Your task to perform on an android device: toggle priority inbox in the gmail app Image 0: 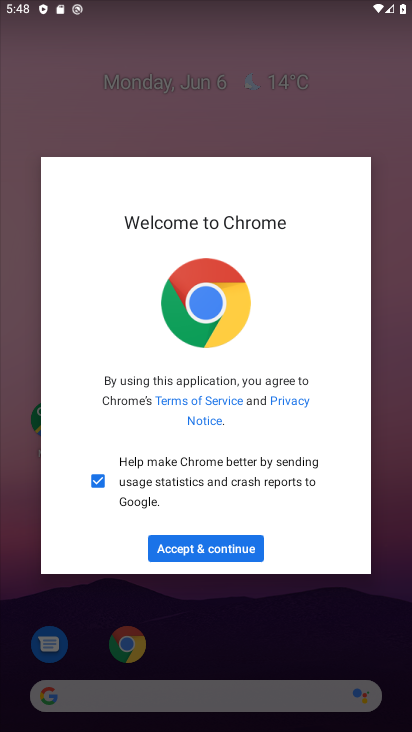
Step 0: click (216, 545)
Your task to perform on an android device: toggle priority inbox in the gmail app Image 1: 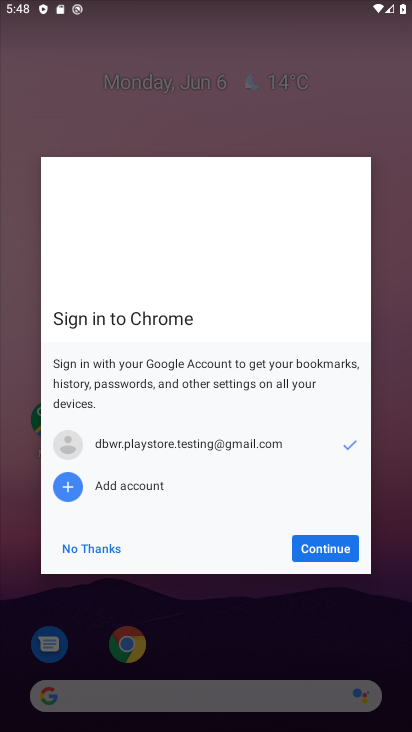
Step 1: click (324, 548)
Your task to perform on an android device: toggle priority inbox in the gmail app Image 2: 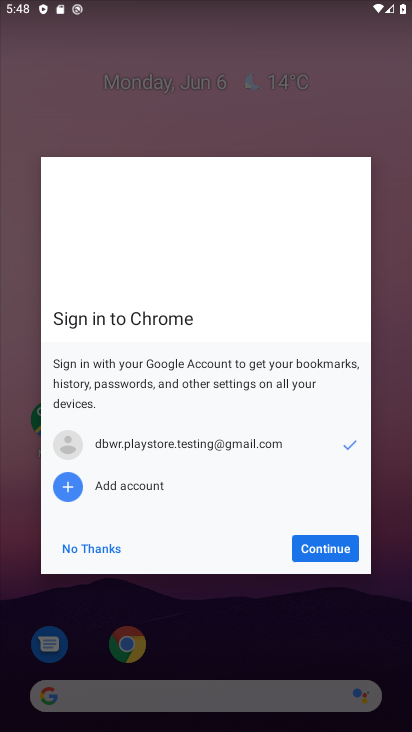
Step 2: click (324, 548)
Your task to perform on an android device: toggle priority inbox in the gmail app Image 3: 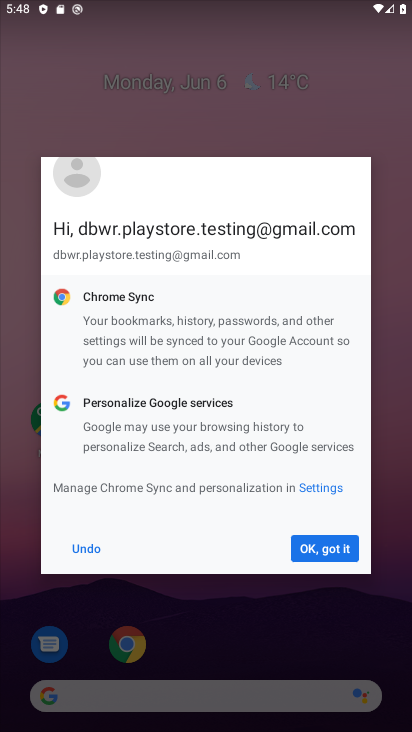
Step 3: click (332, 549)
Your task to perform on an android device: toggle priority inbox in the gmail app Image 4: 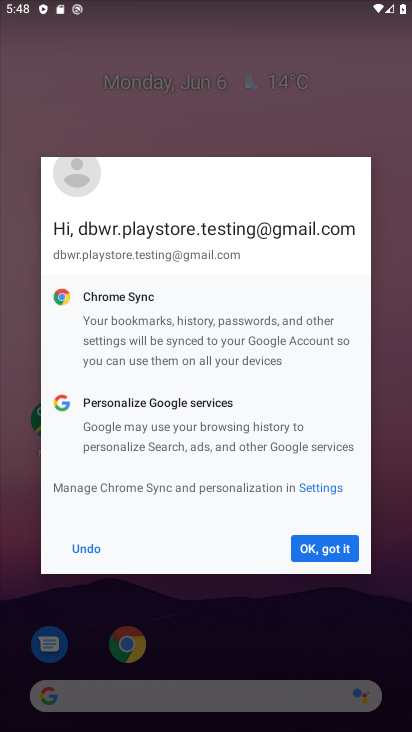
Step 4: click (332, 549)
Your task to perform on an android device: toggle priority inbox in the gmail app Image 5: 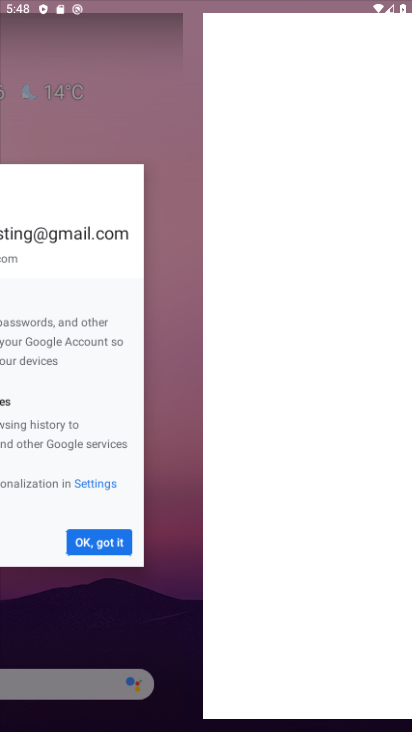
Step 5: click (331, 550)
Your task to perform on an android device: toggle priority inbox in the gmail app Image 6: 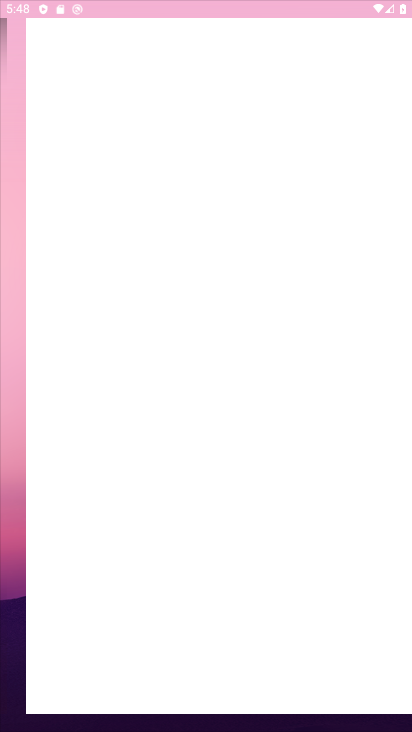
Step 6: click (331, 550)
Your task to perform on an android device: toggle priority inbox in the gmail app Image 7: 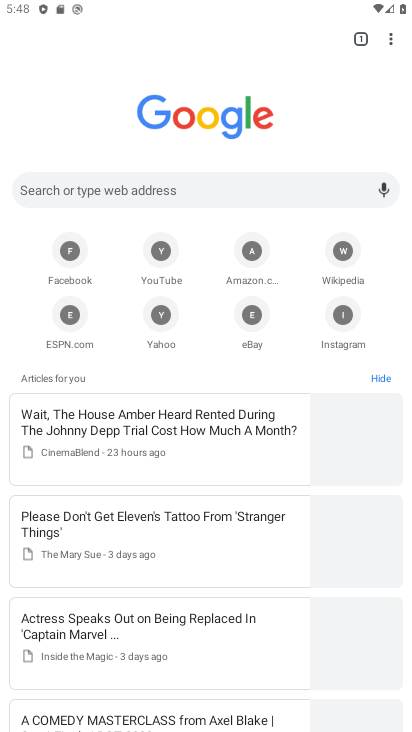
Step 7: drag from (387, 34) to (241, 325)
Your task to perform on an android device: toggle priority inbox in the gmail app Image 8: 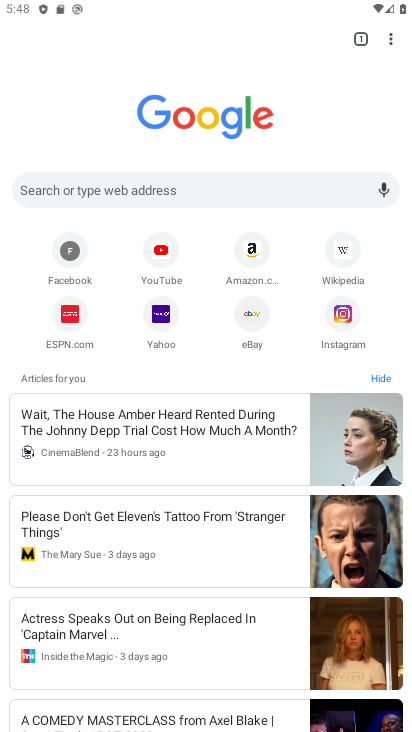
Step 8: press back button
Your task to perform on an android device: toggle priority inbox in the gmail app Image 9: 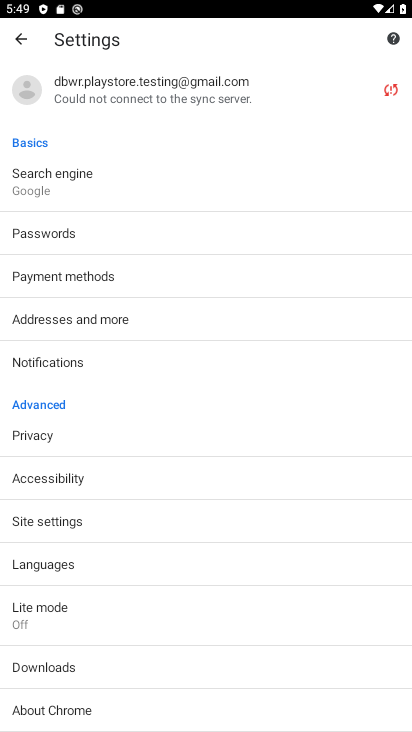
Step 9: press back button
Your task to perform on an android device: toggle priority inbox in the gmail app Image 10: 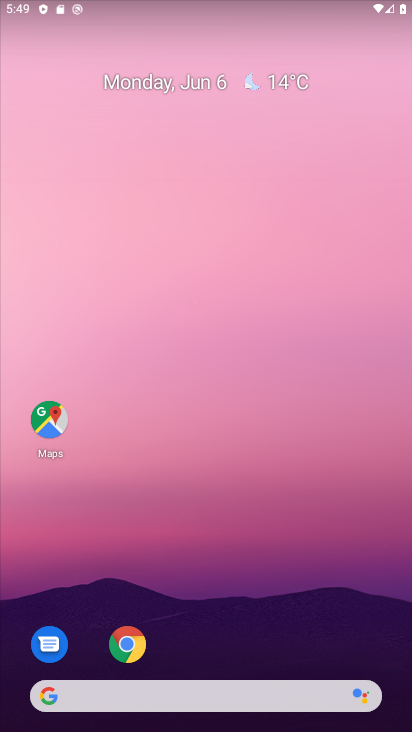
Step 10: drag from (186, 627) to (129, 227)
Your task to perform on an android device: toggle priority inbox in the gmail app Image 11: 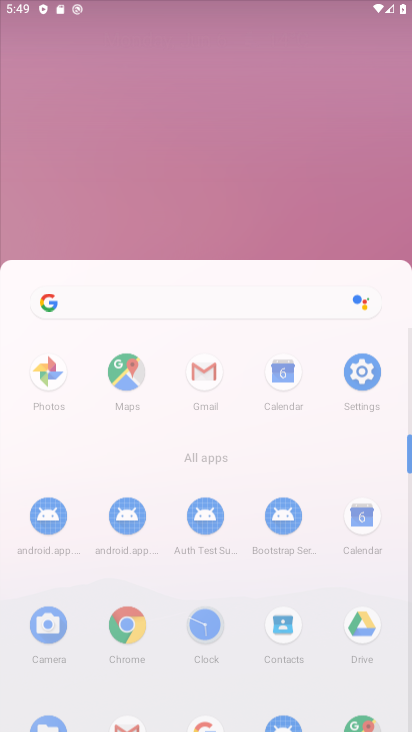
Step 11: drag from (207, 574) to (111, 211)
Your task to perform on an android device: toggle priority inbox in the gmail app Image 12: 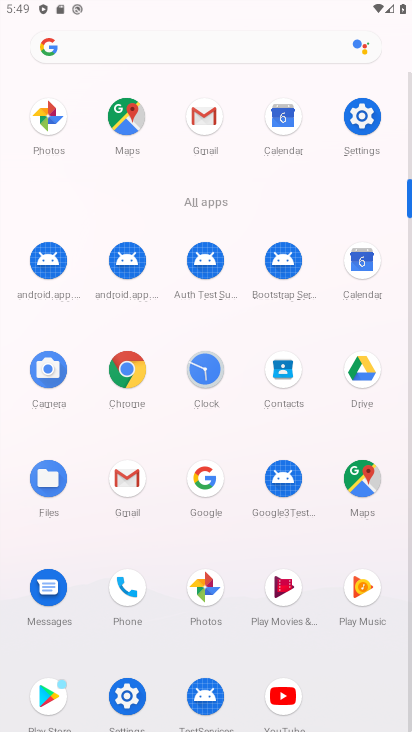
Step 12: drag from (253, 554) to (201, 180)
Your task to perform on an android device: toggle priority inbox in the gmail app Image 13: 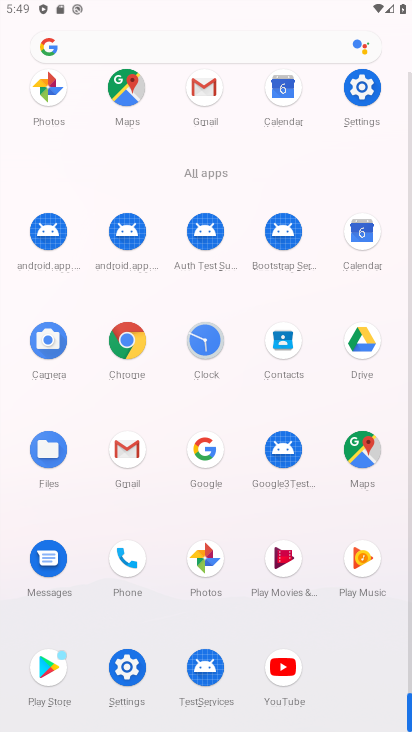
Step 13: click (135, 452)
Your task to perform on an android device: toggle priority inbox in the gmail app Image 14: 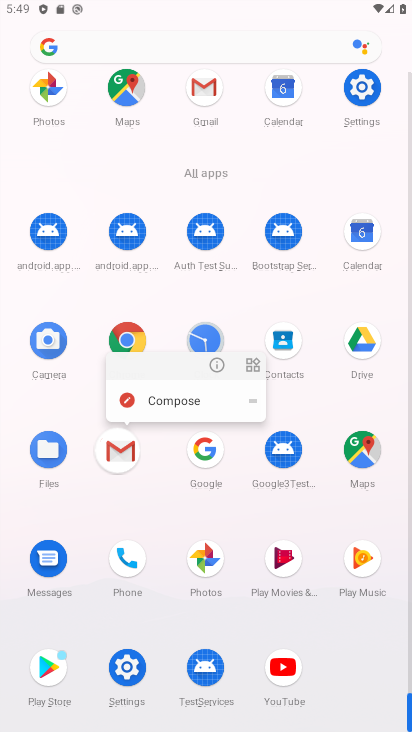
Step 14: click (129, 457)
Your task to perform on an android device: toggle priority inbox in the gmail app Image 15: 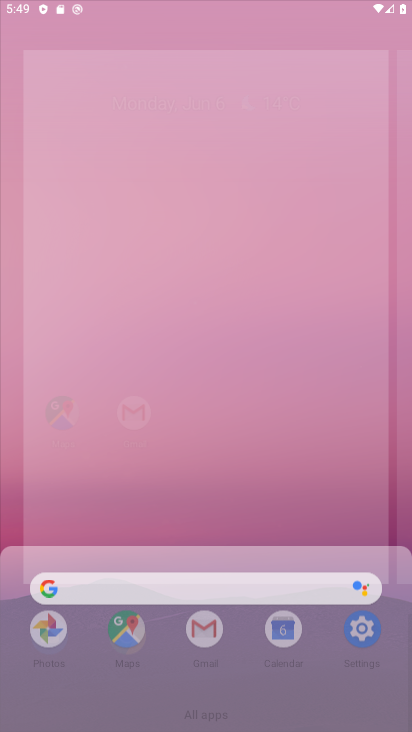
Step 15: click (123, 454)
Your task to perform on an android device: toggle priority inbox in the gmail app Image 16: 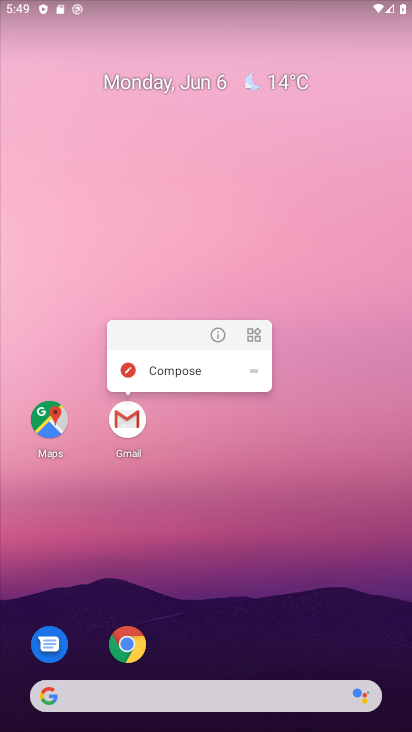
Step 16: drag from (241, 663) to (95, 205)
Your task to perform on an android device: toggle priority inbox in the gmail app Image 17: 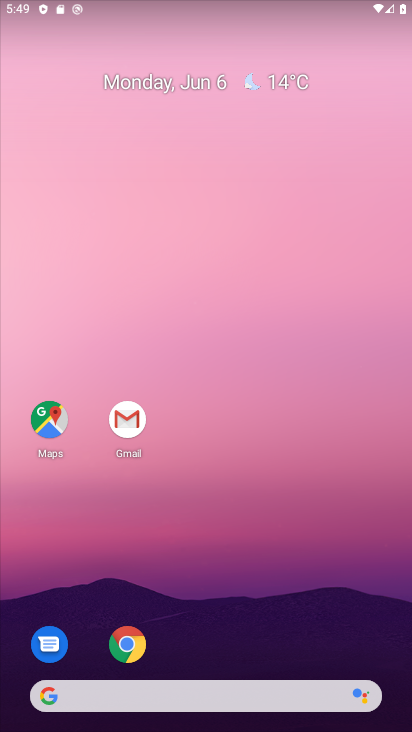
Step 17: drag from (193, 636) to (115, 162)
Your task to perform on an android device: toggle priority inbox in the gmail app Image 18: 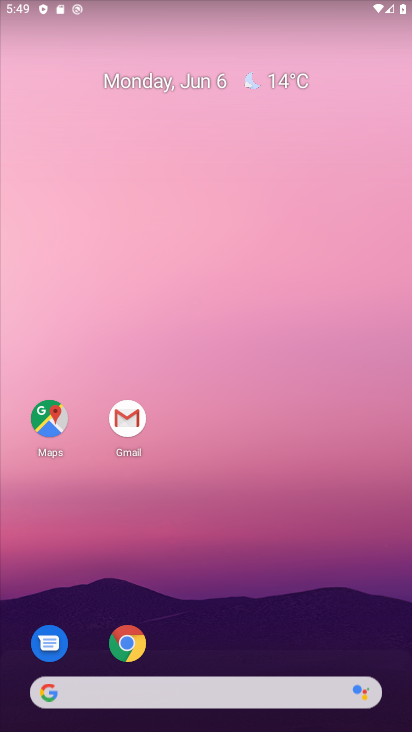
Step 18: drag from (236, 564) to (177, 161)
Your task to perform on an android device: toggle priority inbox in the gmail app Image 19: 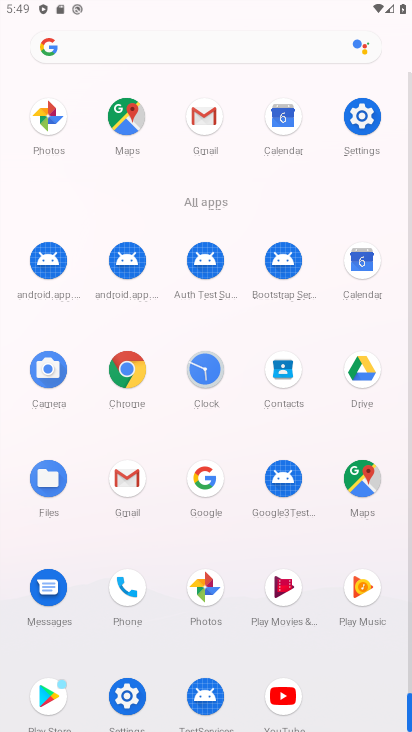
Step 19: drag from (233, 606) to (120, 48)
Your task to perform on an android device: toggle priority inbox in the gmail app Image 20: 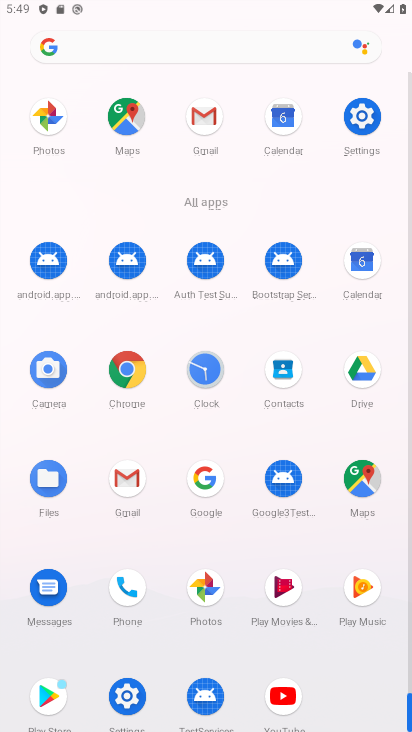
Step 20: click (132, 474)
Your task to perform on an android device: toggle priority inbox in the gmail app Image 21: 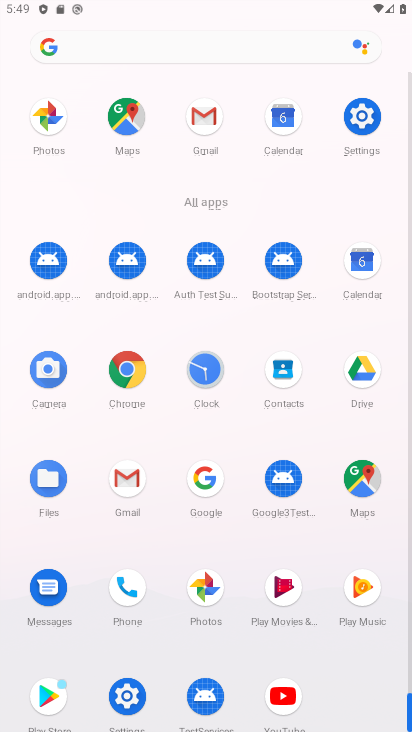
Step 21: click (132, 474)
Your task to perform on an android device: toggle priority inbox in the gmail app Image 22: 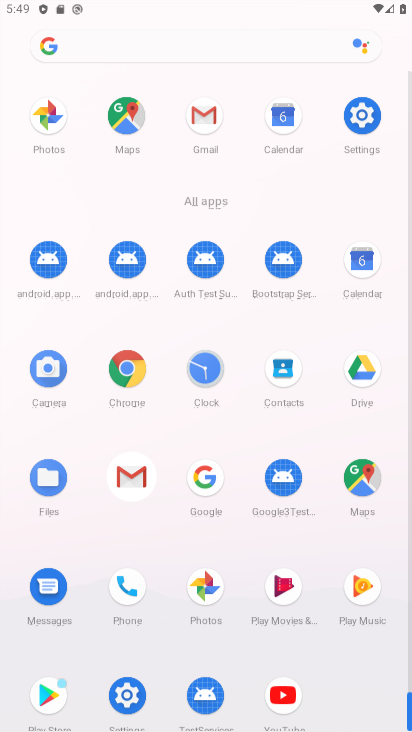
Step 22: click (124, 472)
Your task to perform on an android device: toggle priority inbox in the gmail app Image 23: 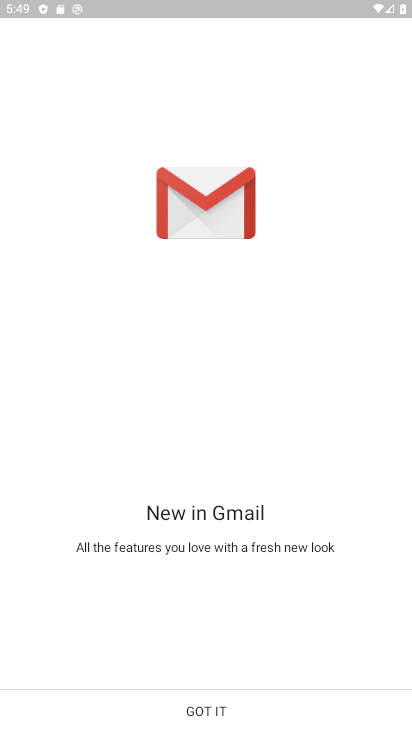
Step 23: click (131, 488)
Your task to perform on an android device: toggle priority inbox in the gmail app Image 24: 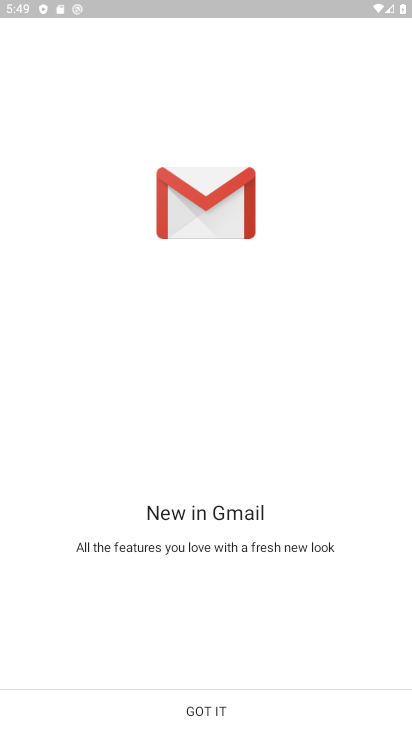
Step 24: click (139, 480)
Your task to perform on an android device: toggle priority inbox in the gmail app Image 25: 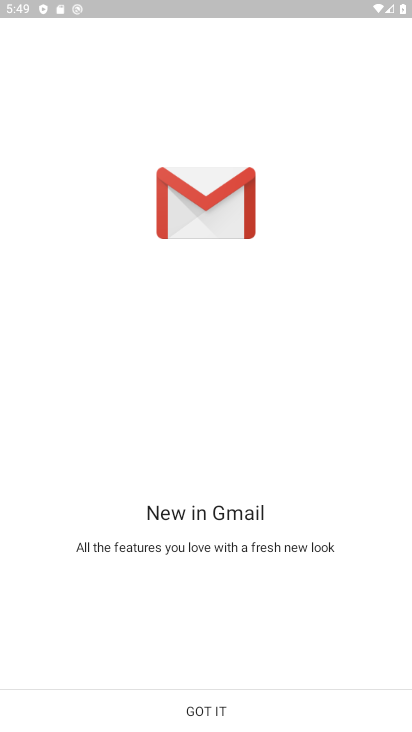
Step 25: click (214, 707)
Your task to perform on an android device: toggle priority inbox in the gmail app Image 26: 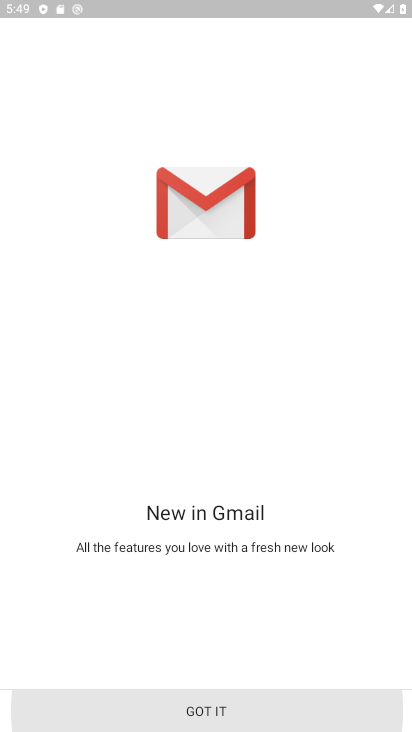
Step 26: drag from (214, 706) to (249, 709)
Your task to perform on an android device: toggle priority inbox in the gmail app Image 27: 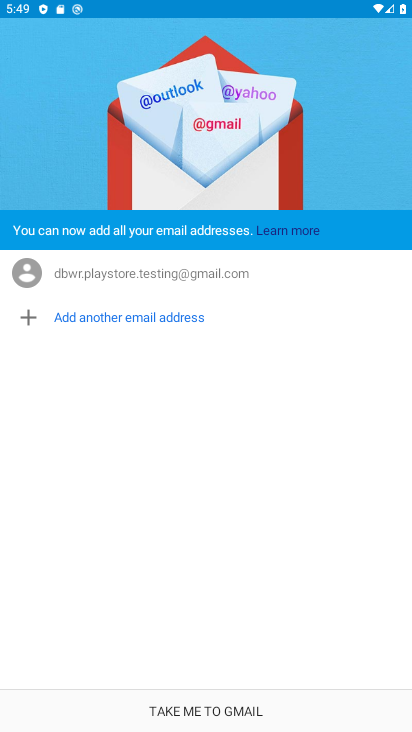
Step 27: click (249, 709)
Your task to perform on an android device: toggle priority inbox in the gmail app Image 28: 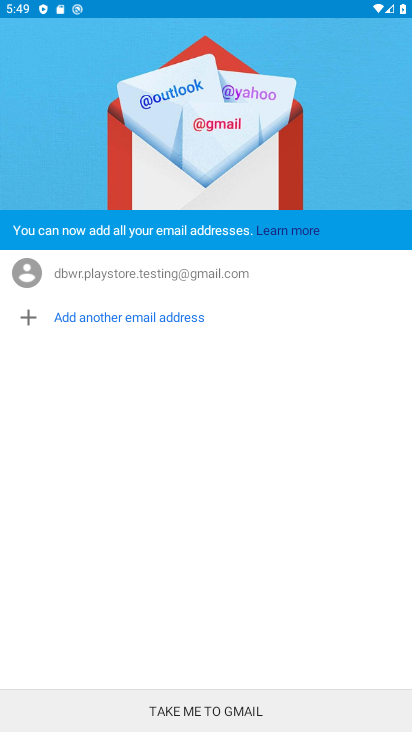
Step 28: click (255, 706)
Your task to perform on an android device: toggle priority inbox in the gmail app Image 29: 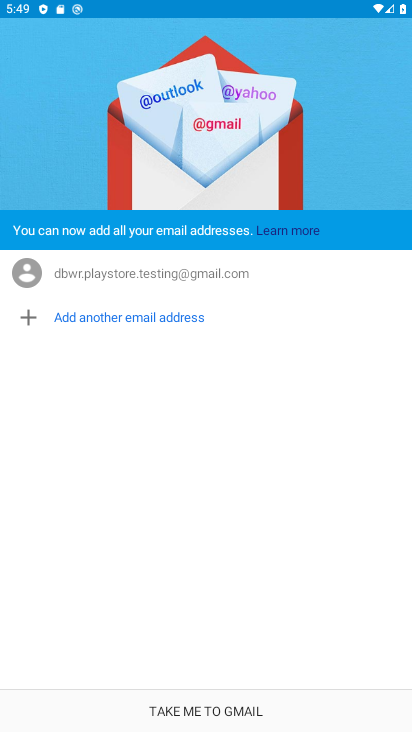
Step 29: click (256, 709)
Your task to perform on an android device: toggle priority inbox in the gmail app Image 30: 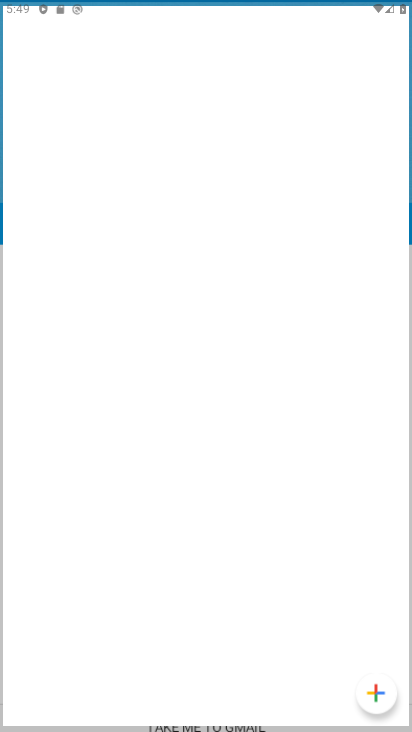
Step 30: click (252, 711)
Your task to perform on an android device: toggle priority inbox in the gmail app Image 31: 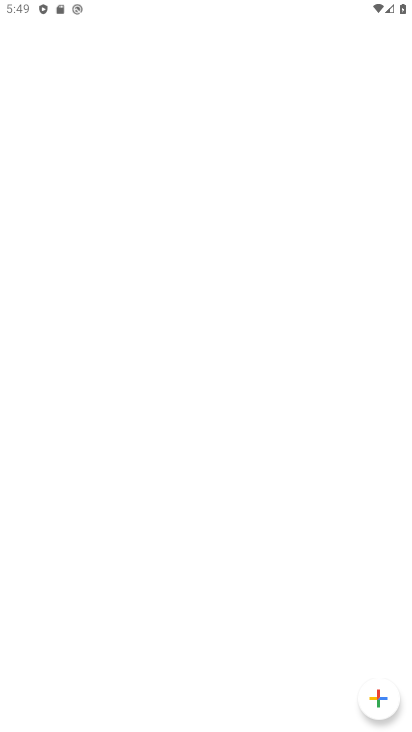
Step 31: click (236, 709)
Your task to perform on an android device: toggle priority inbox in the gmail app Image 32: 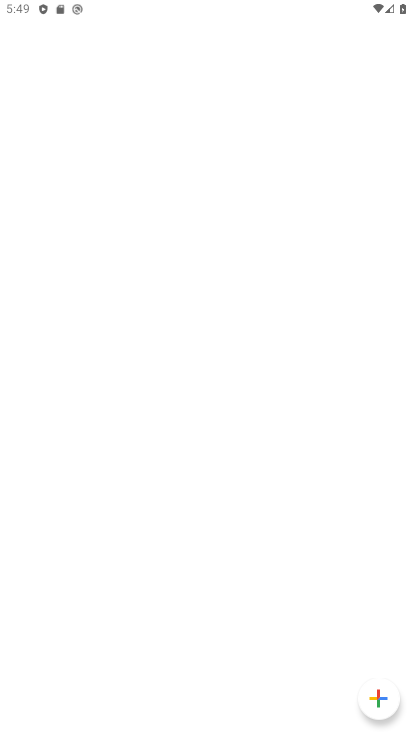
Step 32: click (236, 709)
Your task to perform on an android device: toggle priority inbox in the gmail app Image 33: 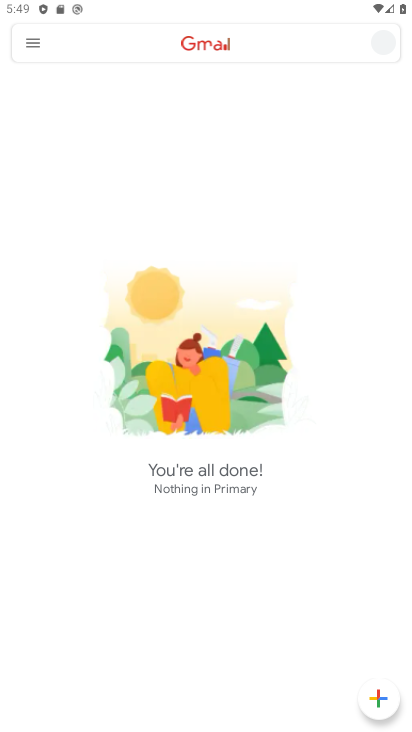
Step 33: click (31, 38)
Your task to perform on an android device: toggle priority inbox in the gmail app Image 34: 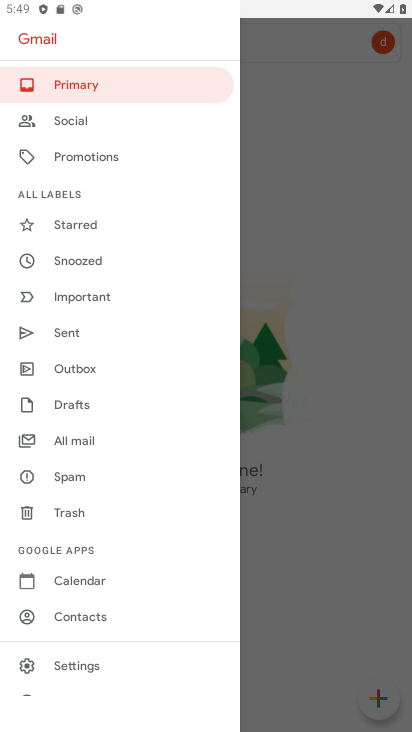
Step 34: click (77, 667)
Your task to perform on an android device: toggle priority inbox in the gmail app Image 35: 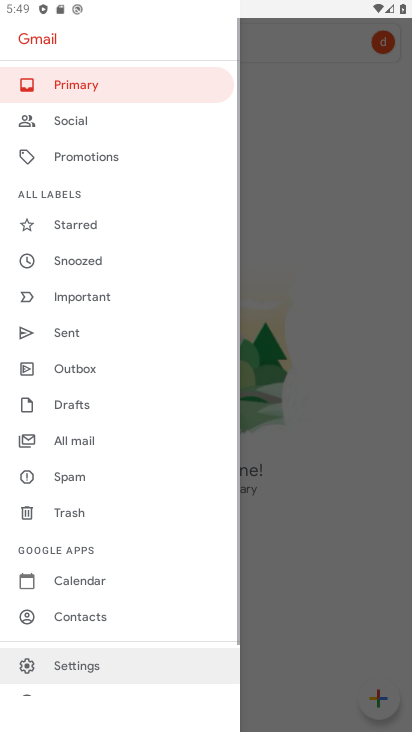
Step 35: click (77, 667)
Your task to perform on an android device: toggle priority inbox in the gmail app Image 36: 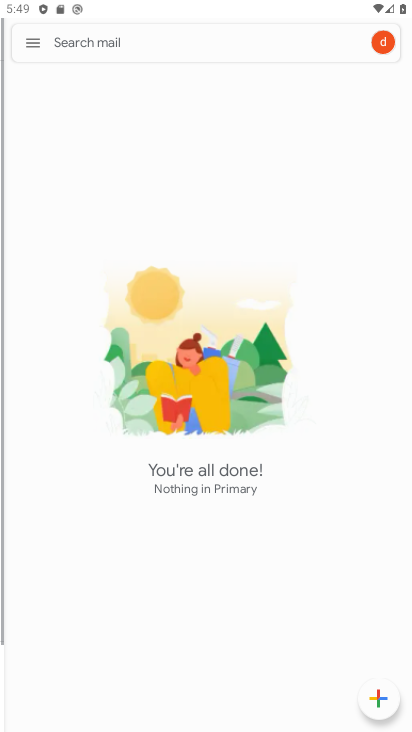
Step 36: click (76, 668)
Your task to perform on an android device: toggle priority inbox in the gmail app Image 37: 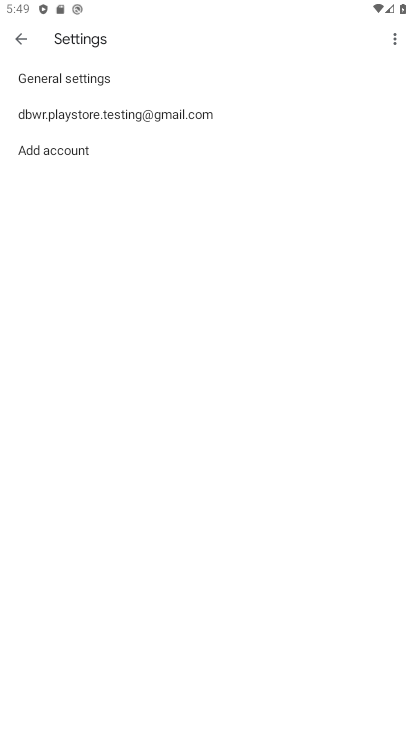
Step 37: click (97, 119)
Your task to perform on an android device: toggle priority inbox in the gmail app Image 38: 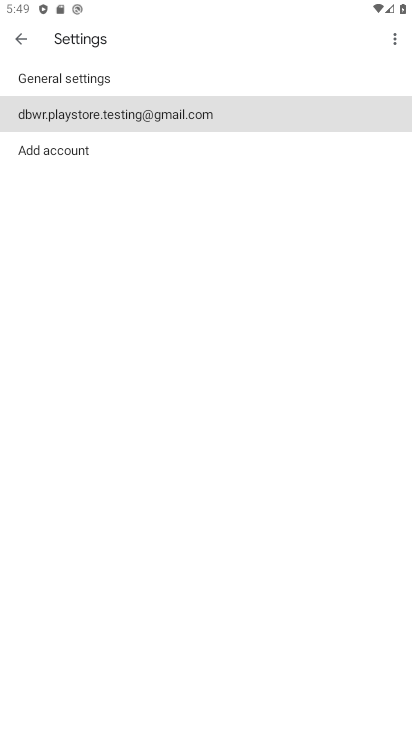
Step 38: click (97, 119)
Your task to perform on an android device: toggle priority inbox in the gmail app Image 39: 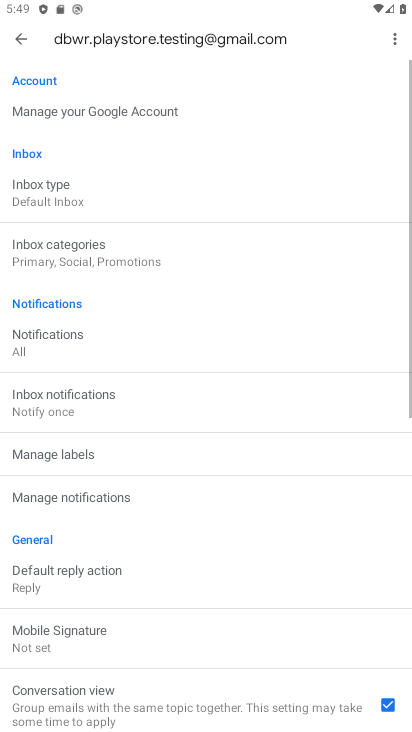
Step 39: click (96, 118)
Your task to perform on an android device: toggle priority inbox in the gmail app Image 40: 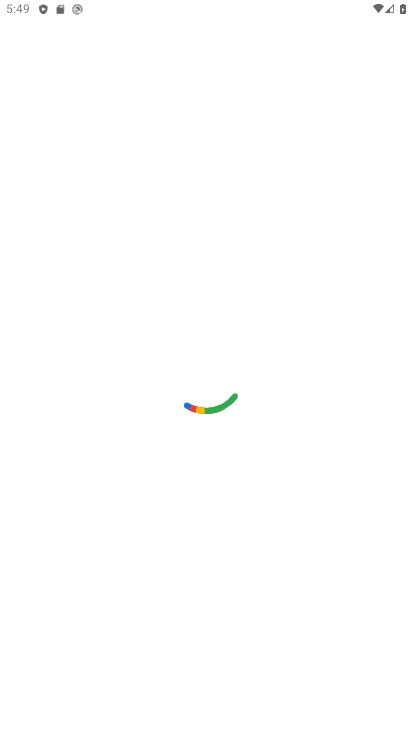
Step 40: press back button
Your task to perform on an android device: toggle priority inbox in the gmail app Image 41: 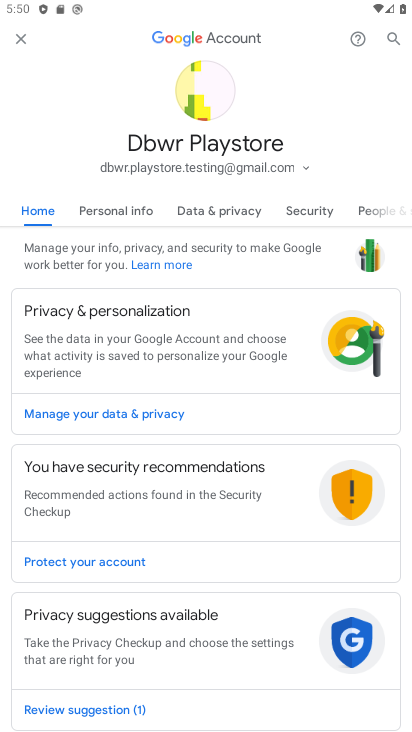
Step 41: click (21, 51)
Your task to perform on an android device: toggle priority inbox in the gmail app Image 42: 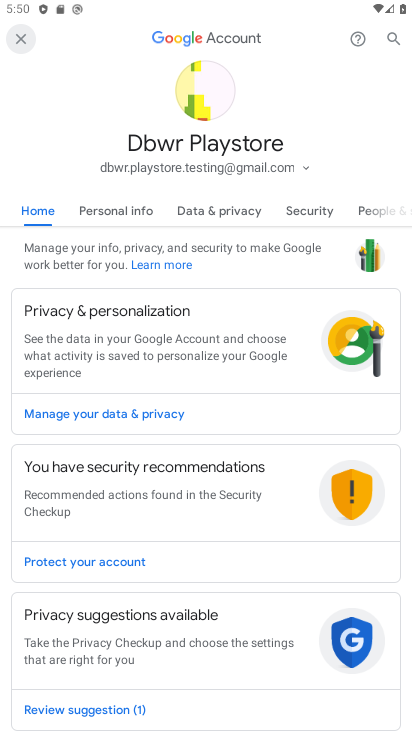
Step 42: click (18, 45)
Your task to perform on an android device: toggle priority inbox in the gmail app Image 43: 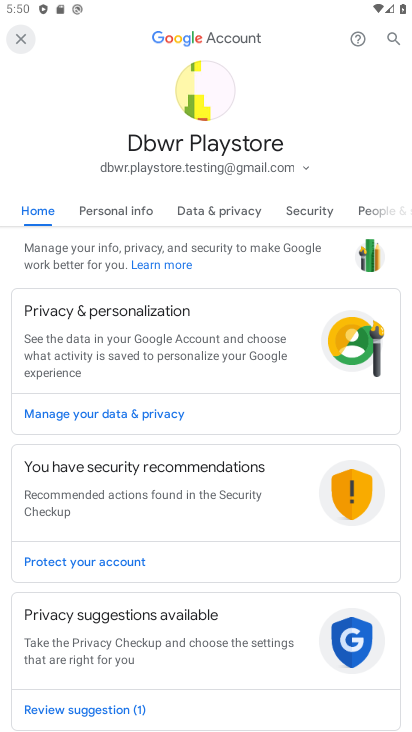
Step 43: click (18, 45)
Your task to perform on an android device: toggle priority inbox in the gmail app Image 44: 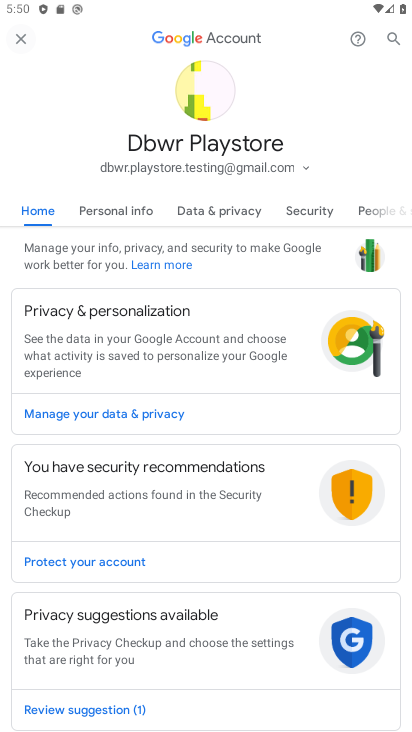
Step 44: click (18, 45)
Your task to perform on an android device: toggle priority inbox in the gmail app Image 45: 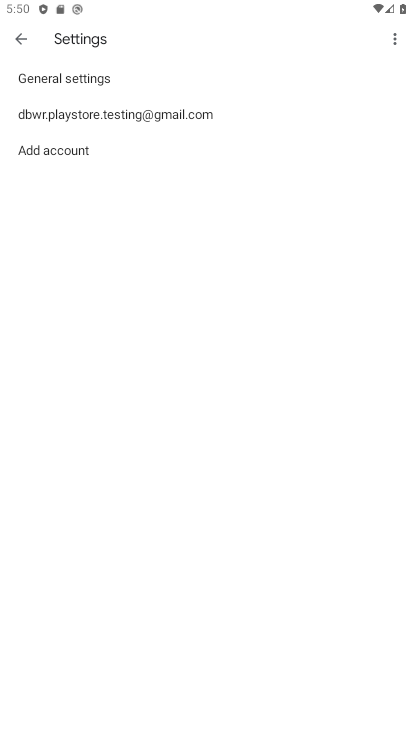
Step 45: click (59, 103)
Your task to perform on an android device: toggle priority inbox in the gmail app Image 46: 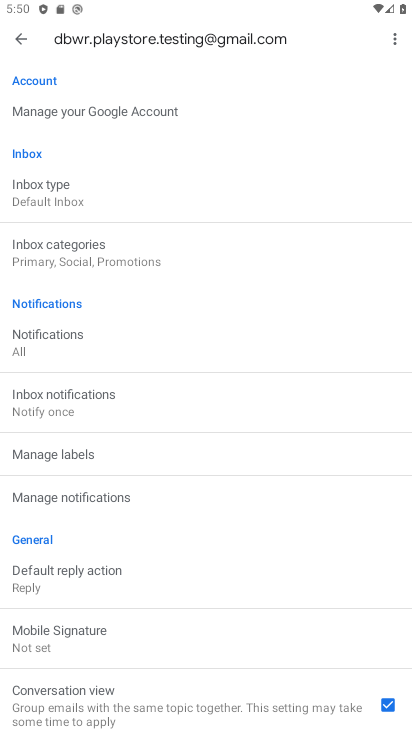
Step 46: click (58, 195)
Your task to perform on an android device: toggle priority inbox in the gmail app Image 47: 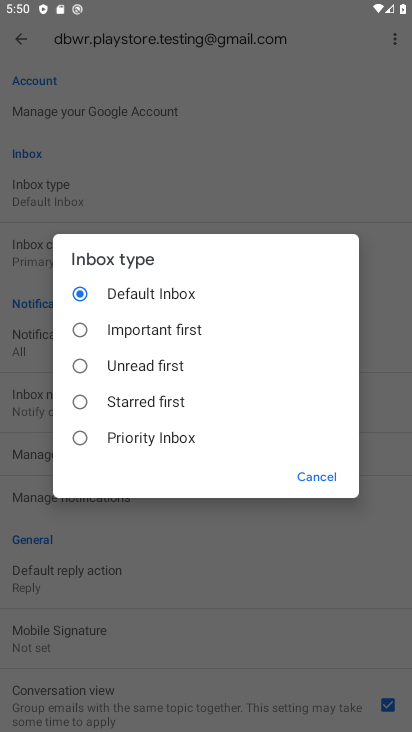
Step 47: click (78, 439)
Your task to perform on an android device: toggle priority inbox in the gmail app Image 48: 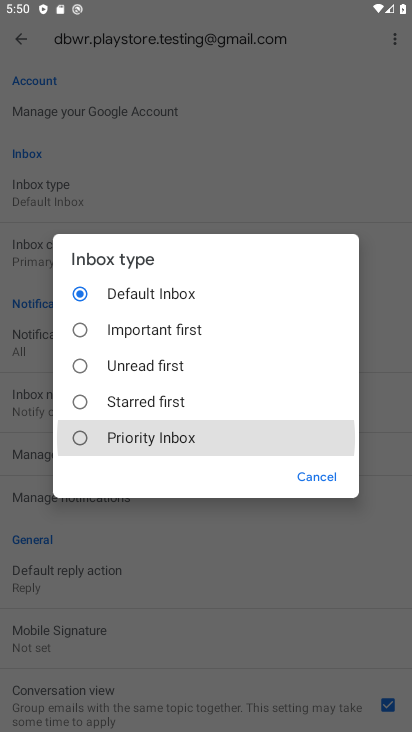
Step 48: click (79, 438)
Your task to perform on an android device: toggle priority inbox in the gmail app Image 49: 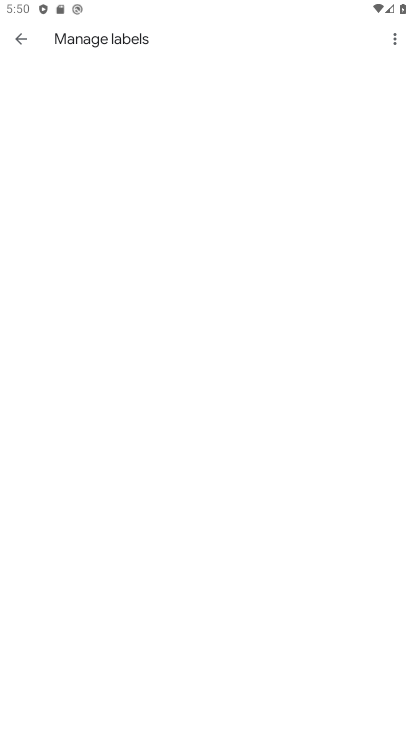
Step 49: task complete